Your task to perform on an android device: open the mobile data screen to see how much data has been used Image 0: 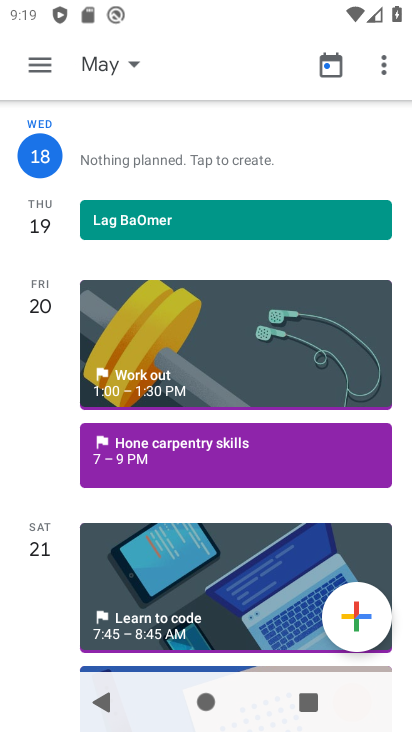
Step 0: press home button
Your task to perform on an android device: open the mobile data screen to see how much data has been used Image 1: 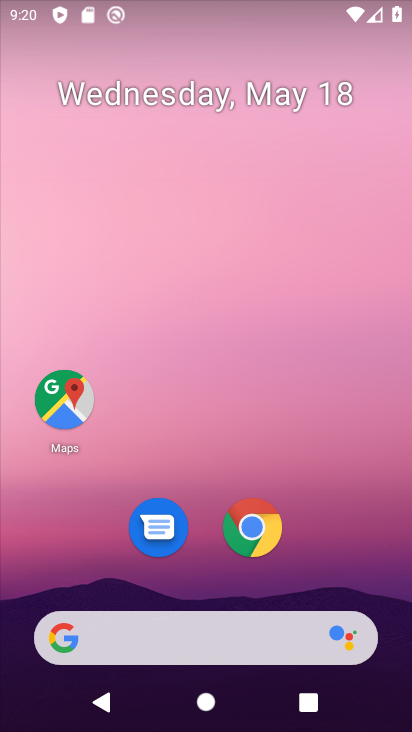
Step 1: drag from (343, 579) to (300, 88)
Your task to perform on an android device: open the mobile data screen to see how much data has been used Image 2: 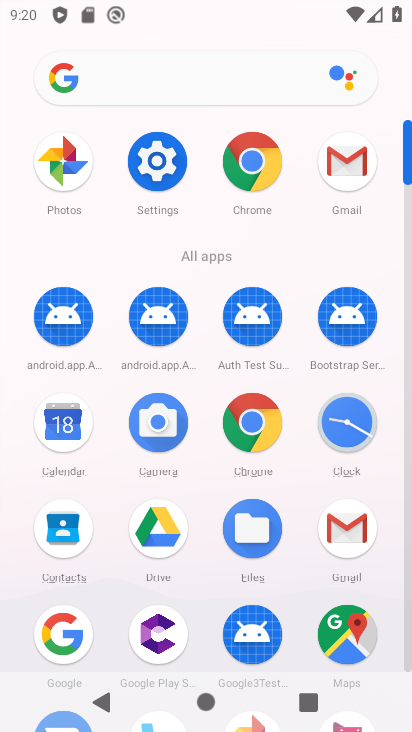
Step 2: click (169, 173)
Your task to perform on an android device: open the mobile data screen to see how much data has been used Image 3: 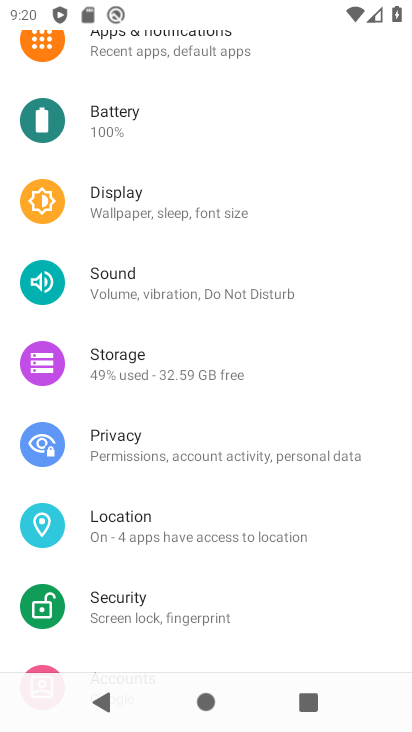
Step 3: drag from (240, 171) to (254, 423)
Your task to perform on an android device: open the mobile data screen to see how much data has been used Image 4: 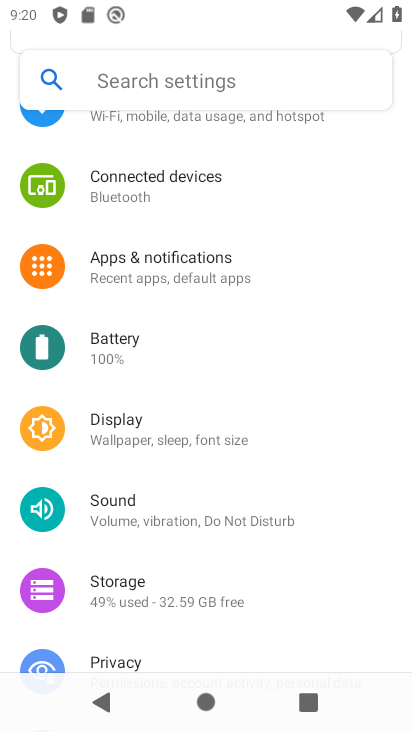
Step 4: click (216, 122)
Your task to perform on an android device: open the mobile data screen to see how much data has been used Image 5: 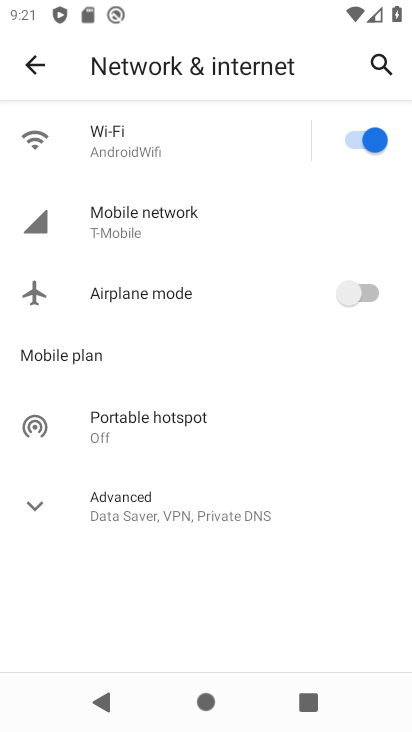
Step 5: click (180, 216)
Your task to perform on an android device: open the mobile data screen to see how much data has been used Image 6: 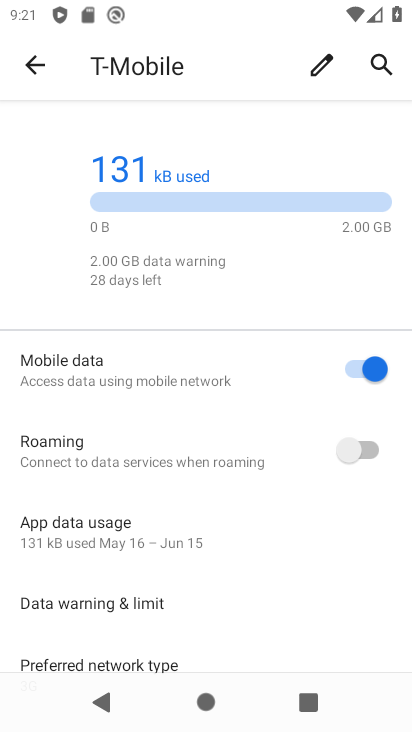
Step 6: click (105, 536)
Your task to perform on an android device: open the mobile data screen to see how much data has been used Image 7: 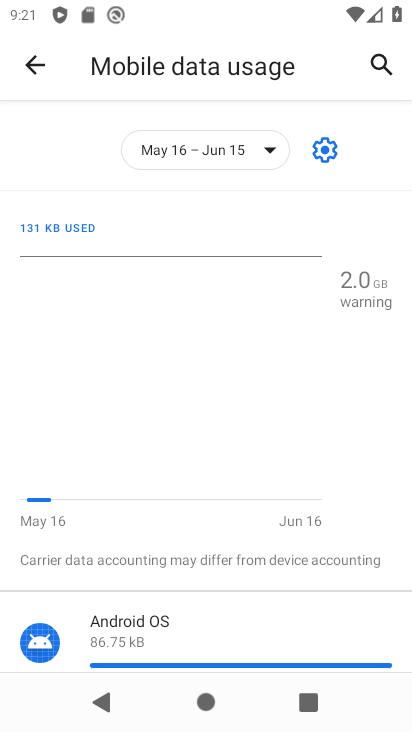
Step 7: task complete